Your task to perform on an android device: open app "Google Duo" (install if not already installed) Image 0: 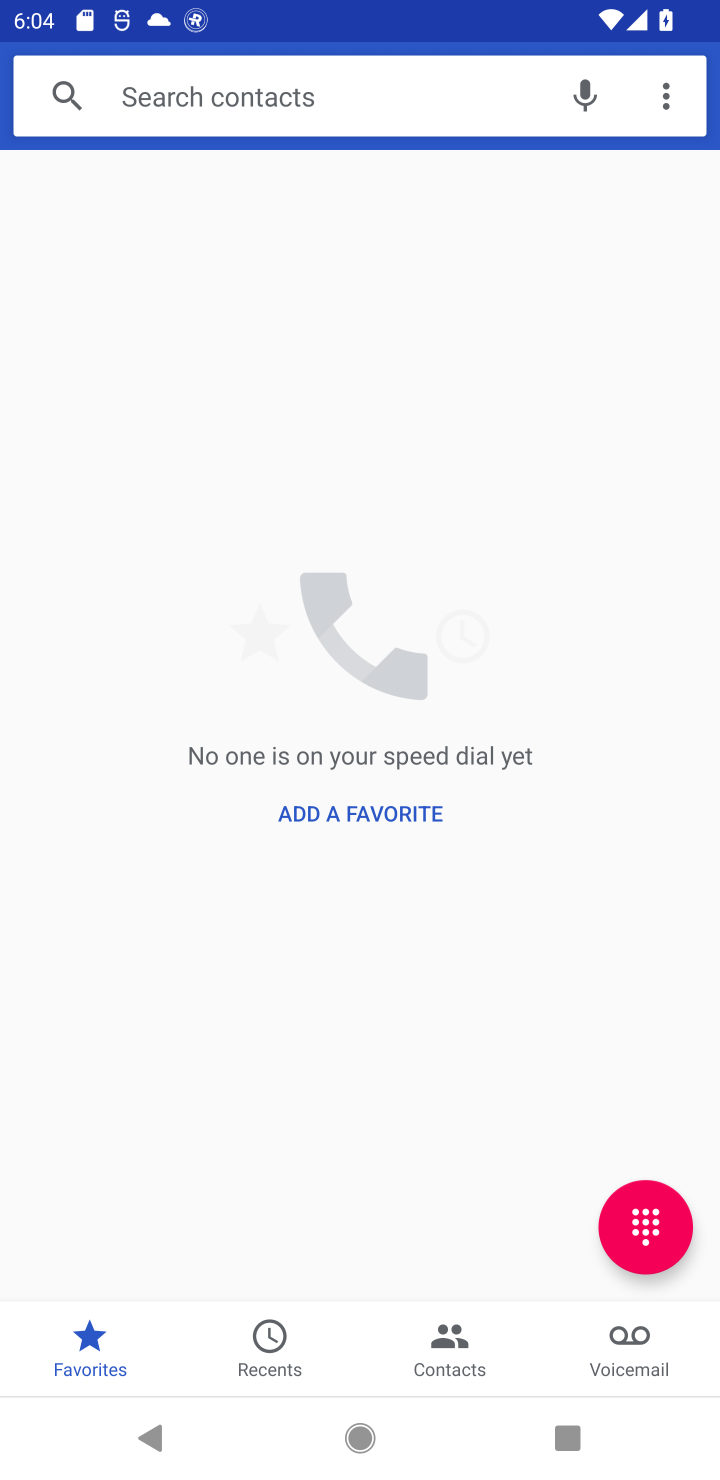
Step 0: press home button
Your task to perform on an android device: open app "Google Duo" (install if not already installed) Image 1: 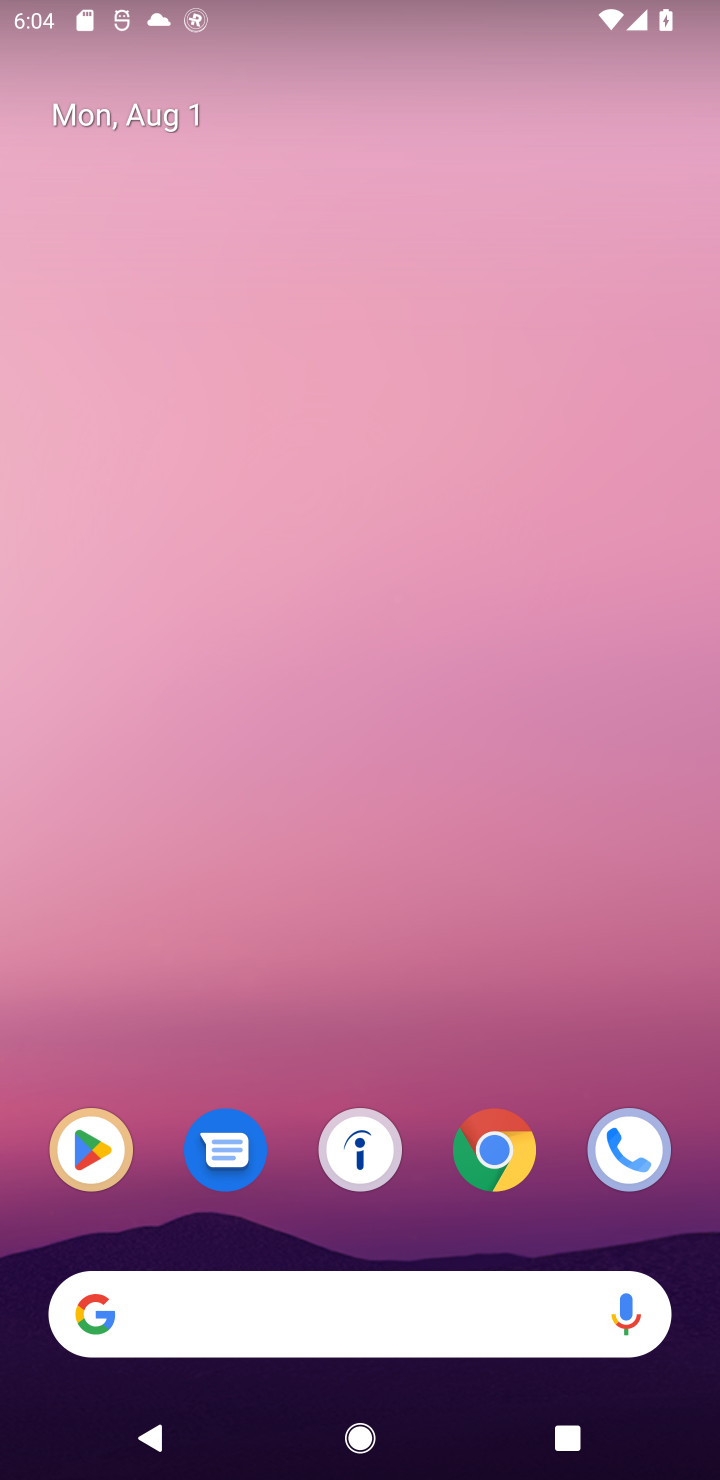
Step 1: click (94, 1121)
Your task to perform on an android device: open app "Google Duo" (install if not already installed) Image 2: 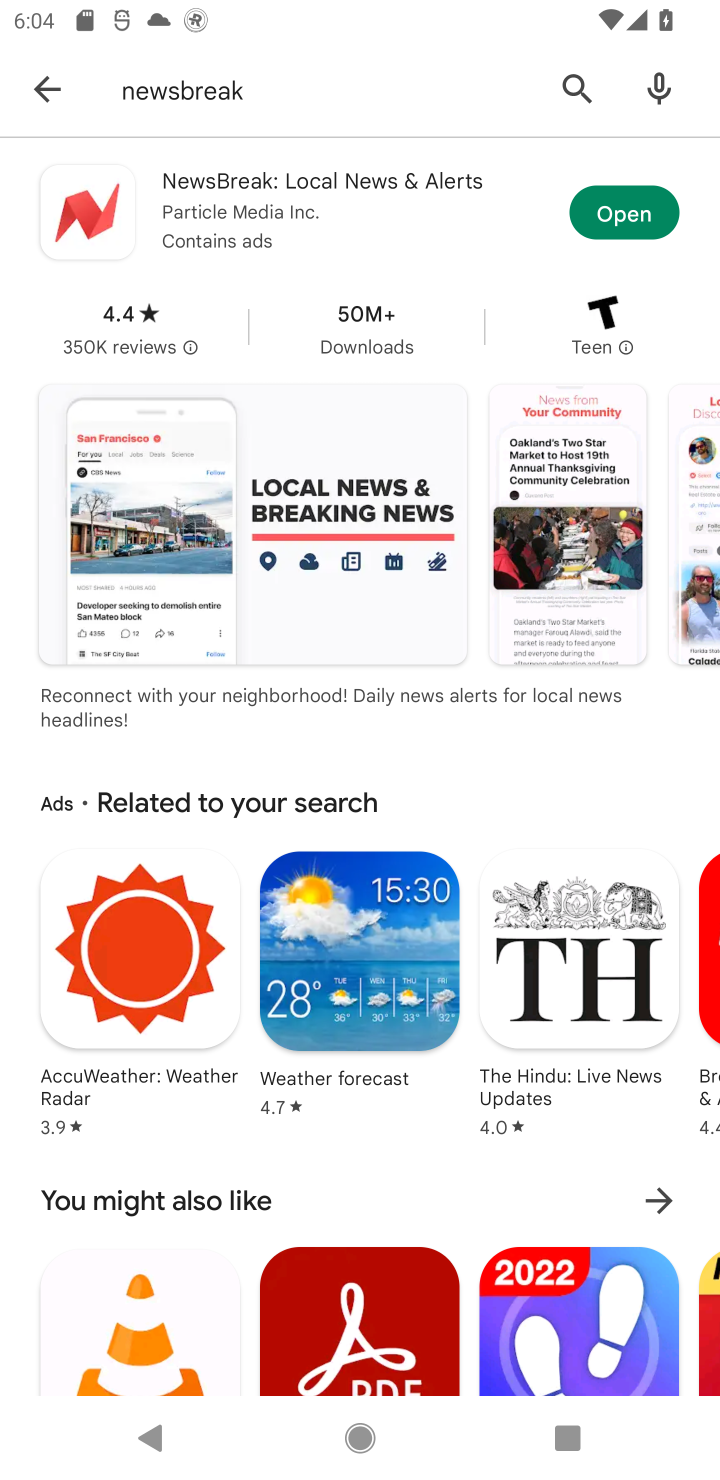
Step 2: click (564, 113)
Your task to perform on an android device: open app "Google Duo" (install if not already installed) Image 3: 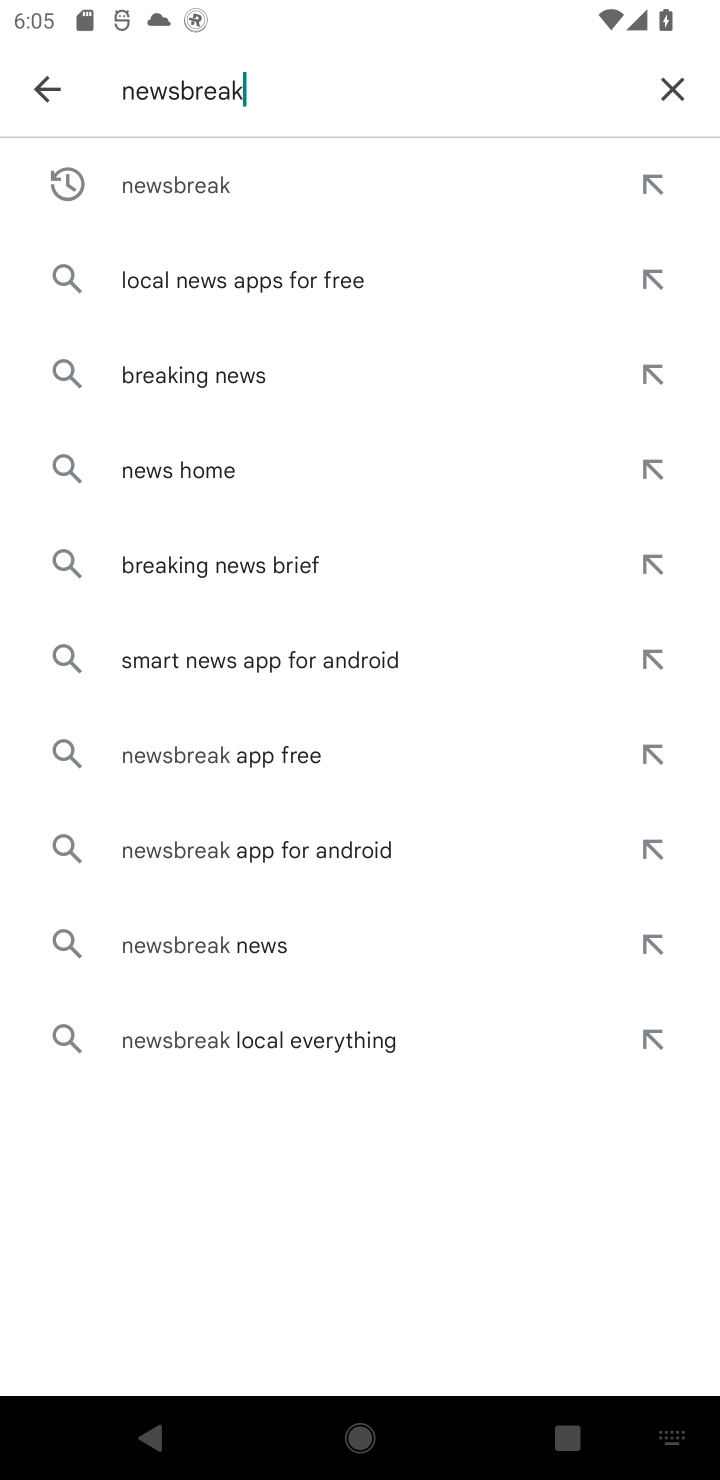
Step 3: click (695, 87)
Your task to perform on an android device: open app "Google Duo" (install if not already installed) Image 4: 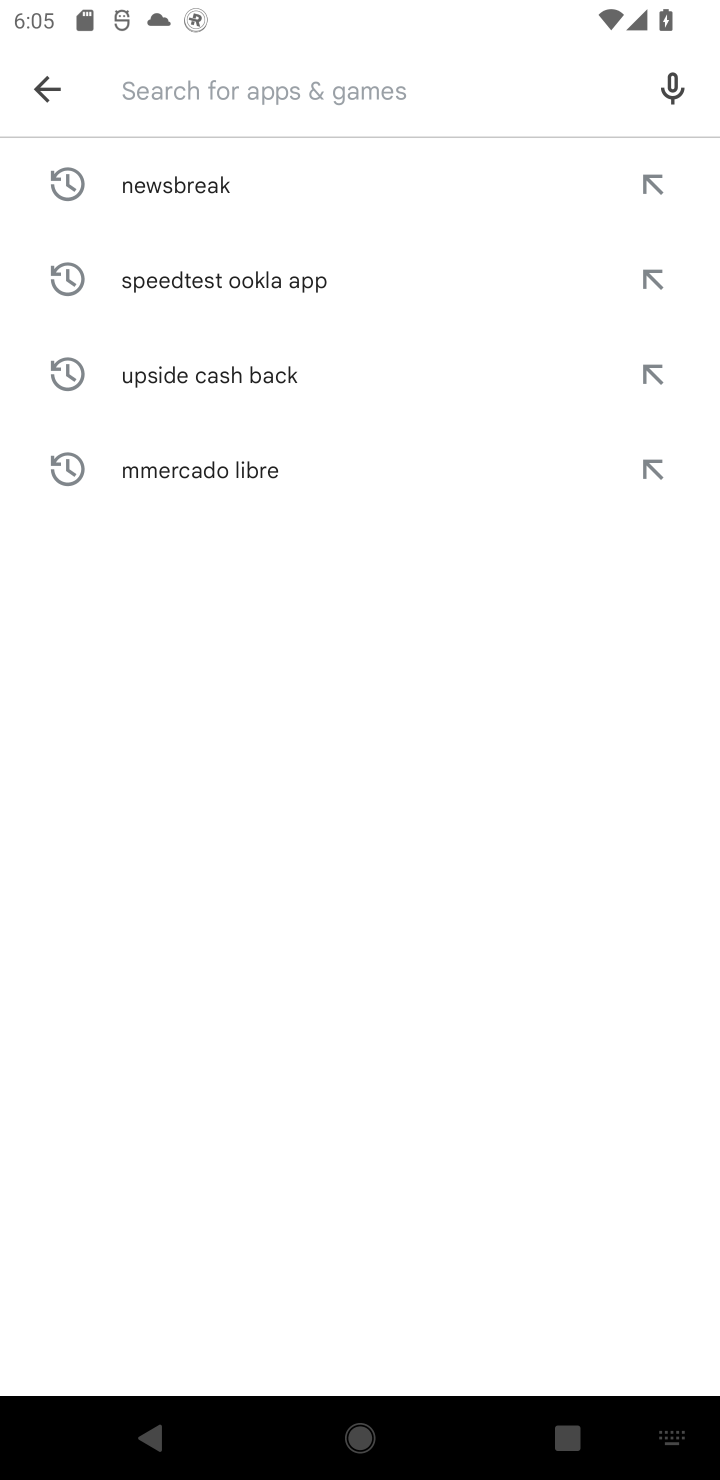
Step 4: type "google duo"
Your task to perform on an android device: open app "Google Duo" (install if not already installed) Image 5: 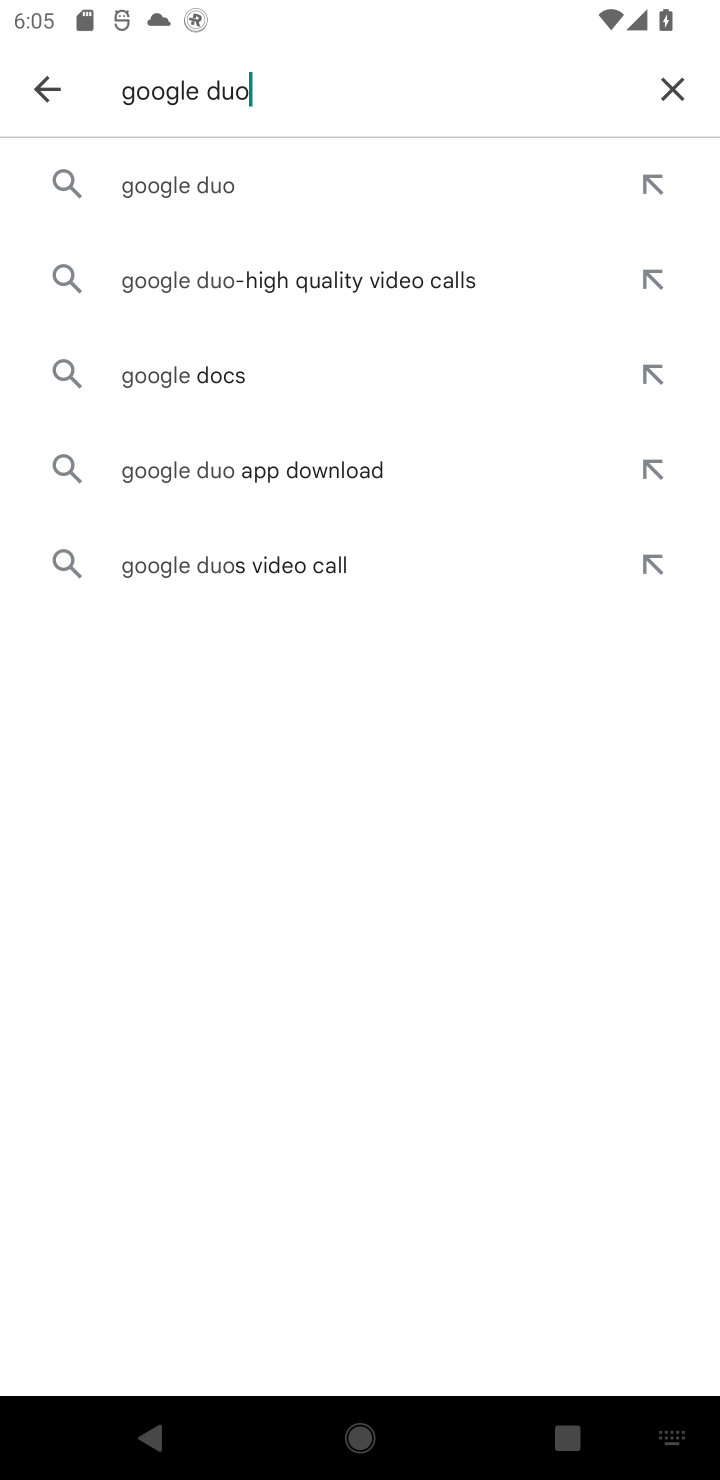
Step 5: click (352, 216)
Your task to perform on an android device: open app "Google Duo" (install if not already installed) Image 6: 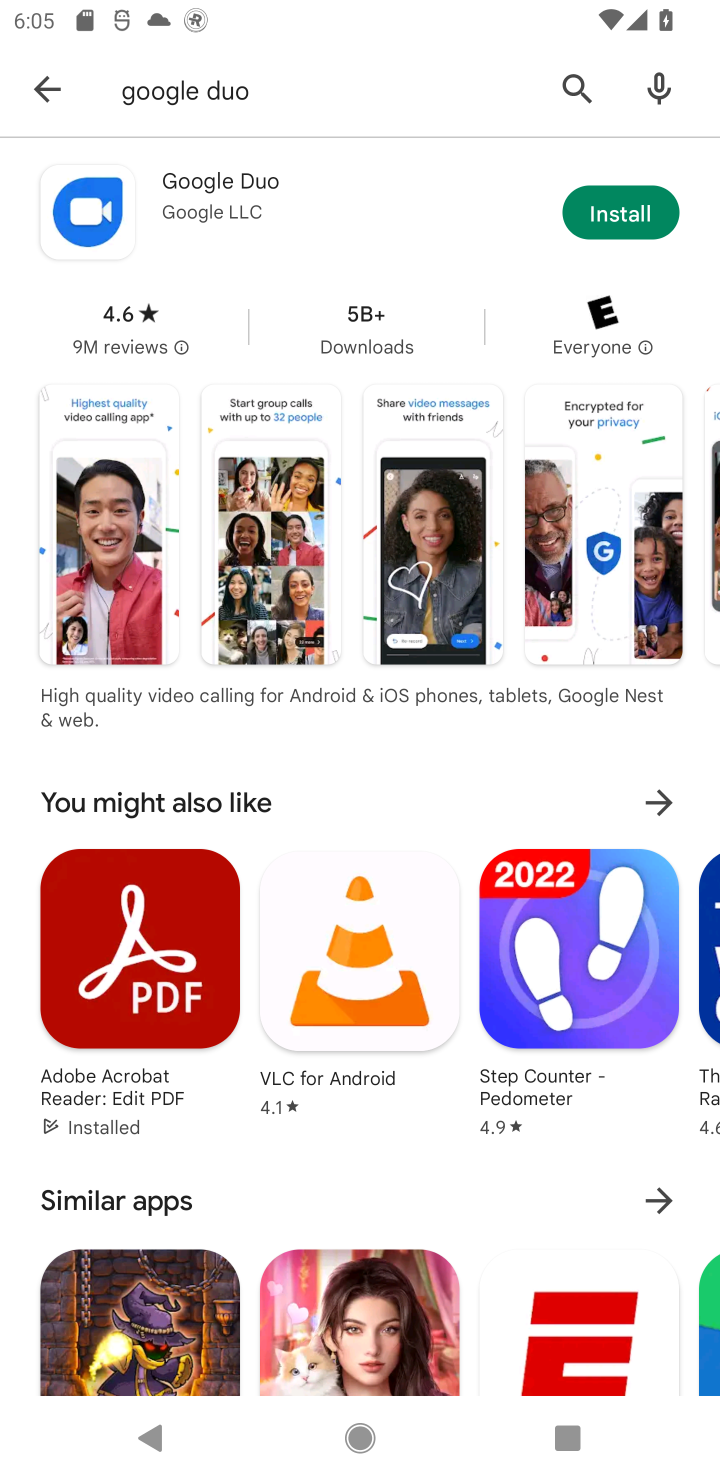
Step 6: click (571, 207)
Your task to perform on an android device: open app "Google Duo" (install if not already installed) Image 7: 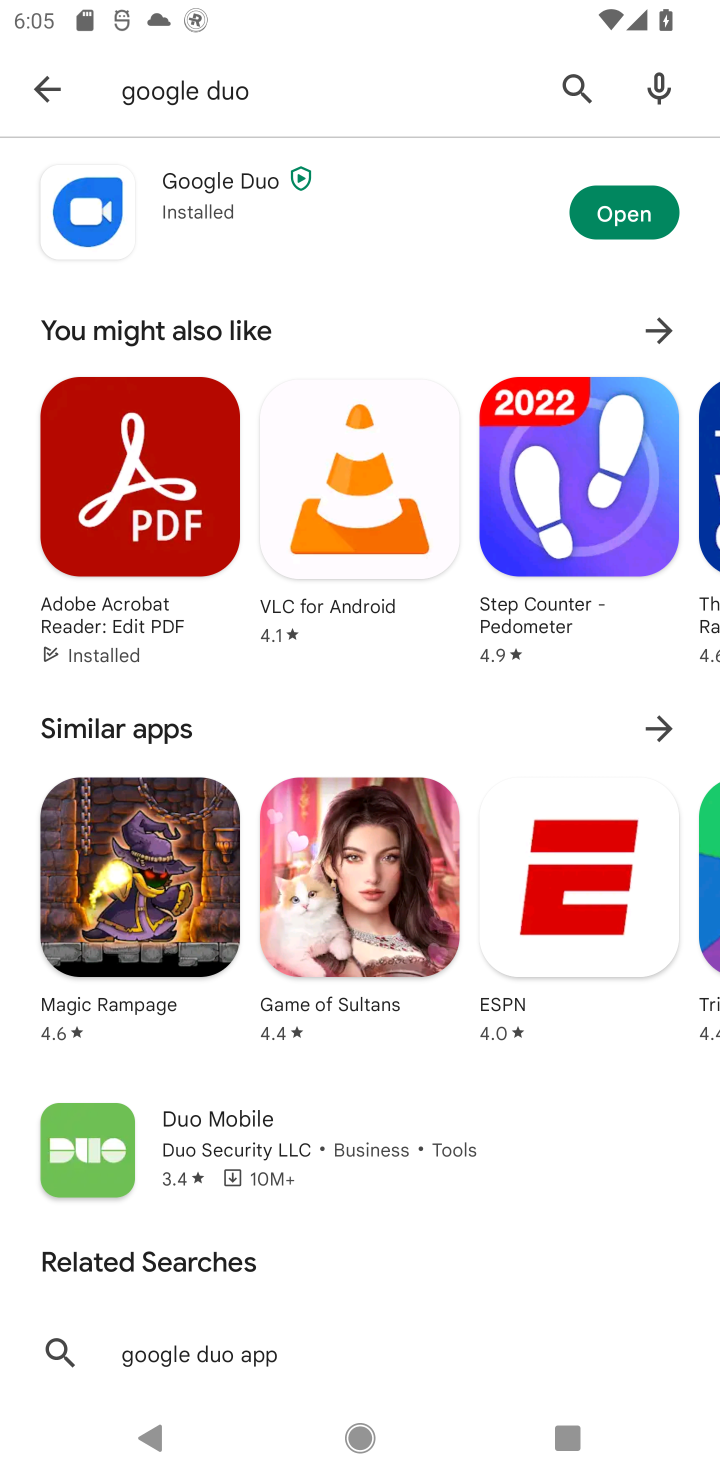
Step 7: click (632, 234)
Your task to perform on an android device: open app "Google Duo" (install if not already installed) Image 8: 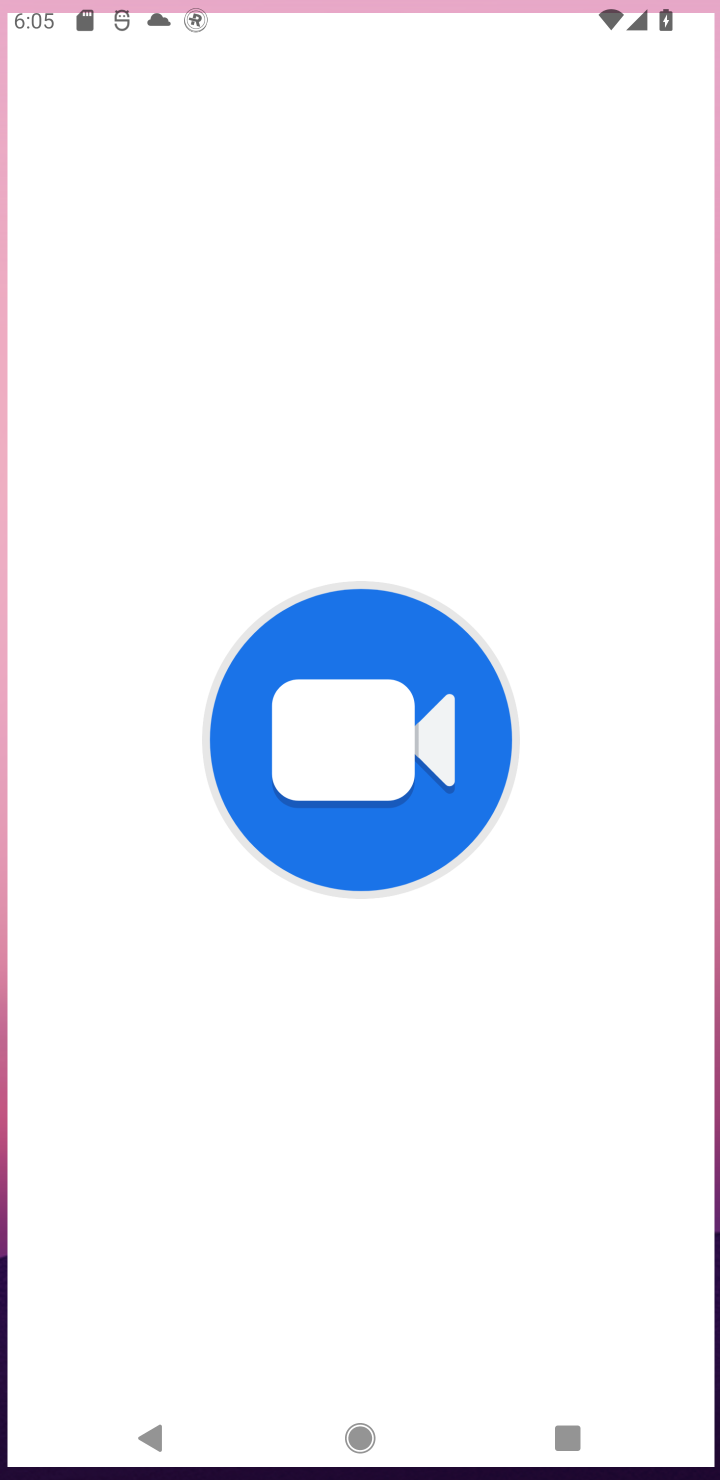
Step 8: task complete